Your task to perform on an android device: toggle notification dots Image 0: 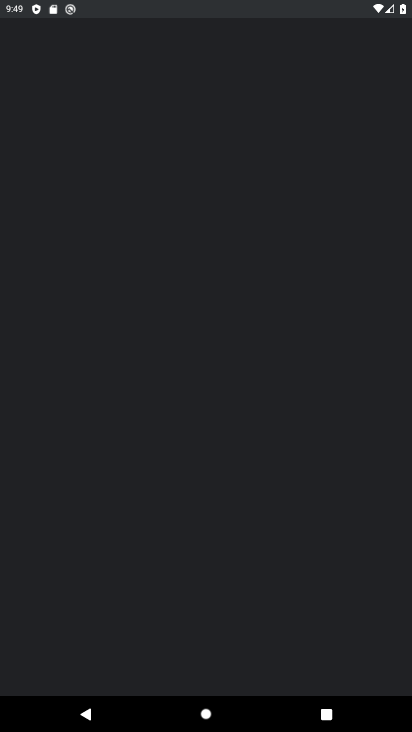
Step 0: drag from (237, 616) to (249, 438)
Your task to perform on an android device: toggle notification dots Image 1: 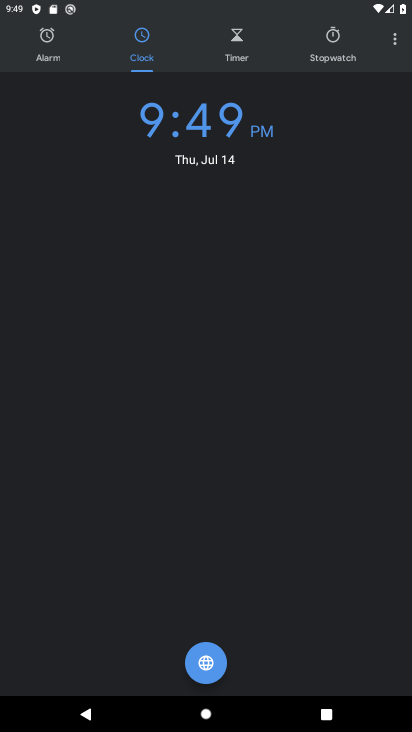
Step 1: press home button
Your task to perform on an android device: toggle notification dots Image 2: 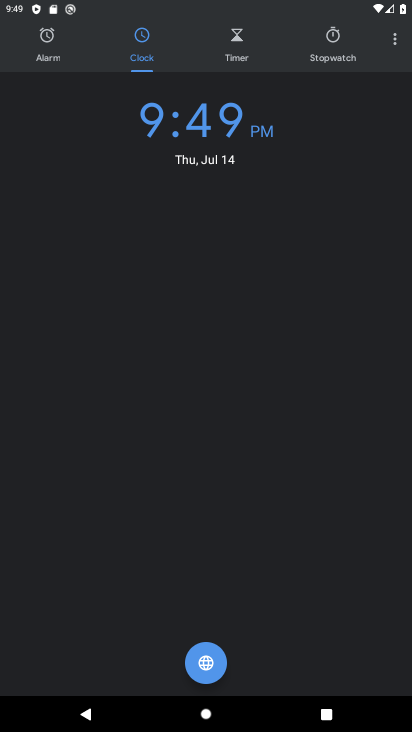
Step 2: drag from (249, 438) to (366, 539)
Your task to perform on an android device: toggle notification dots Image 3: 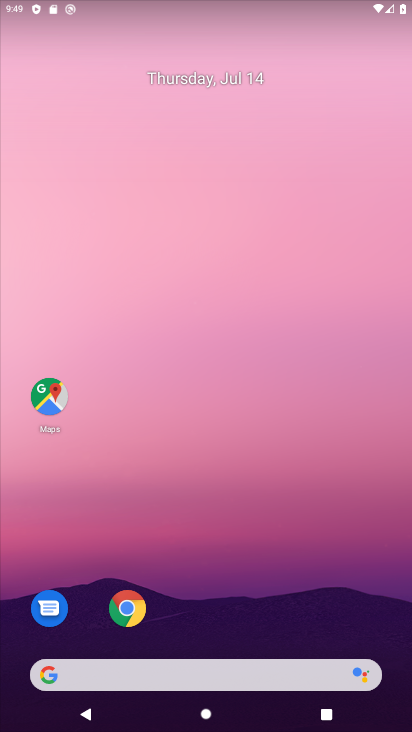
Step 3: drag from (180, 176) to (227, 83)
Your task to perform on an android device: toggle notification dots Image 4: 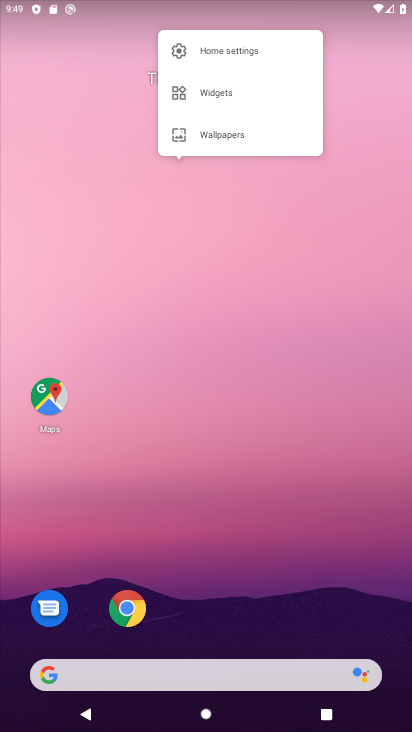
Step 4: click (195, 641)
Your task to perform on an android device: toggle notification dots Image 5: 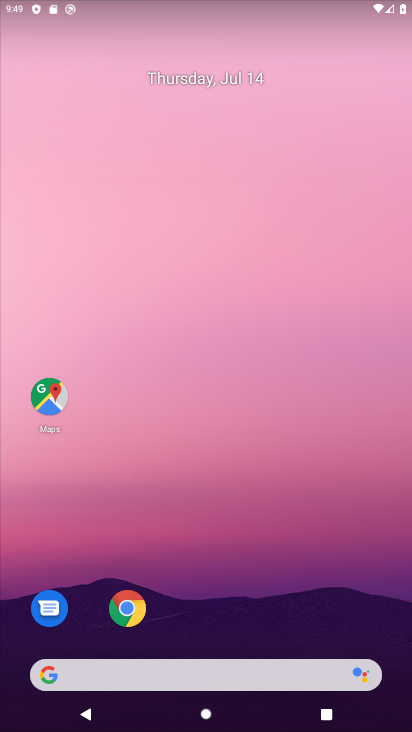
Step 5: drag from (196, 610) to (187, 172)
Your task to perform on an android device: toggle notification dots Image 6: 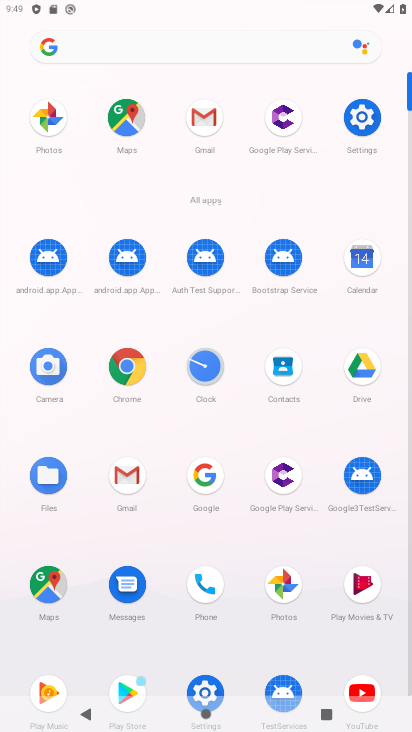
Step 6: click (357, 120)
Your task to perform on an android device: toggle notification dots Image 7: 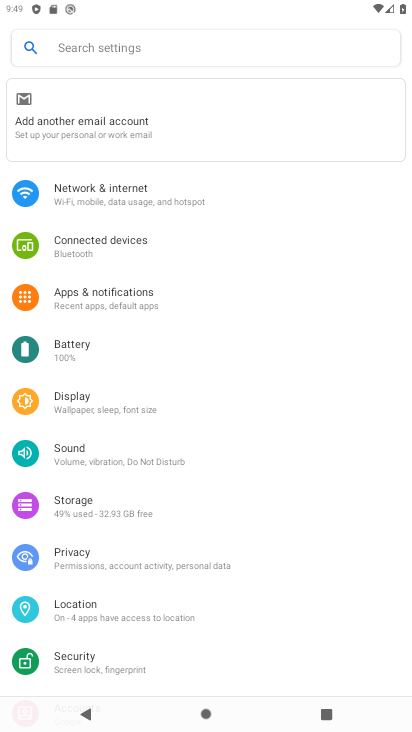
Step 7: click (86, 286)
Your task to perform on an android device: toggle notification dots Image 8: 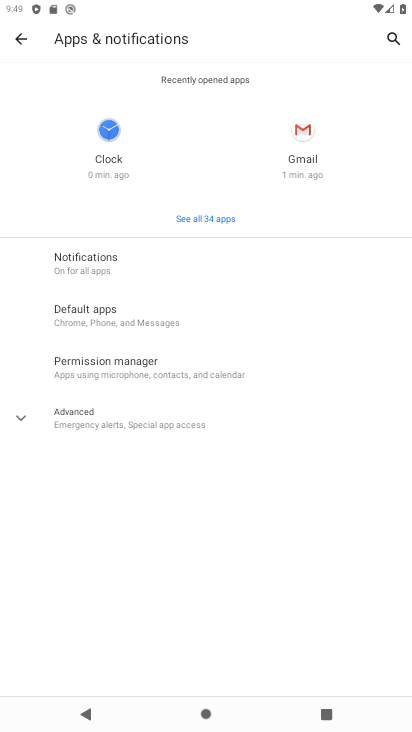
Step 8: click (101, 261)
Your task to perform on an android device: toggle notification dots Image 9: 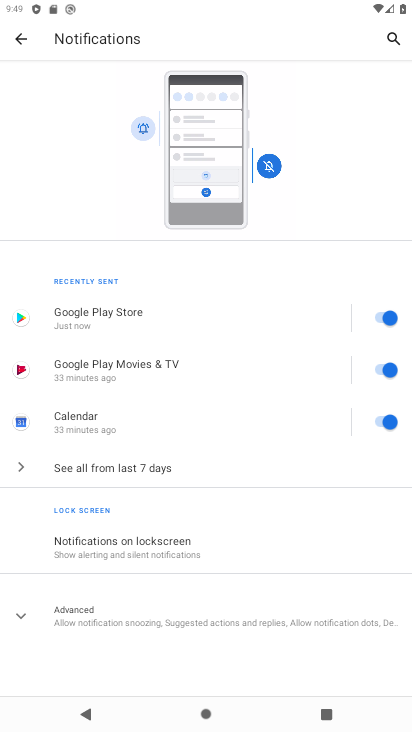
Step 9: click (95, 619)
Your task to perform on an android device: toggle notification dots Image 10: 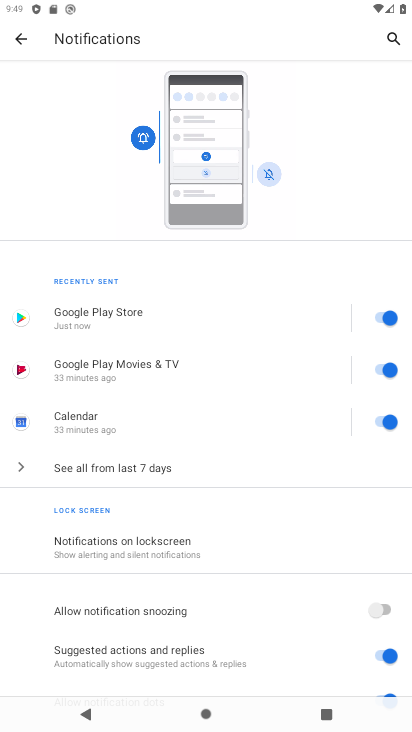
Step 10: drag from (269, 497) to (269, 438)
Your task to perform on an android device: toggle notification dots Image 11: 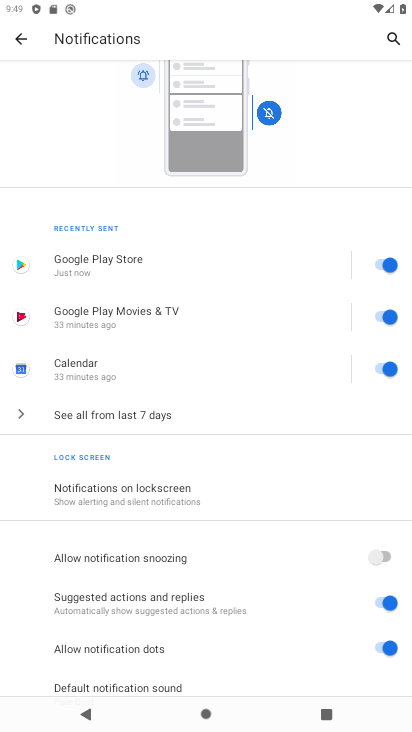
Step 11: click (376, 645)
Your task to perform on an android device: toggle notification dots Image 12: 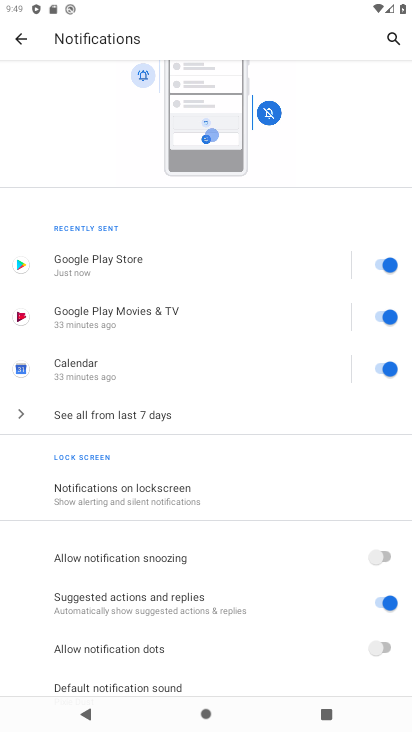
Step 12: task complete